Your task to perform on an android device: Go to Wikipedia Image 0: 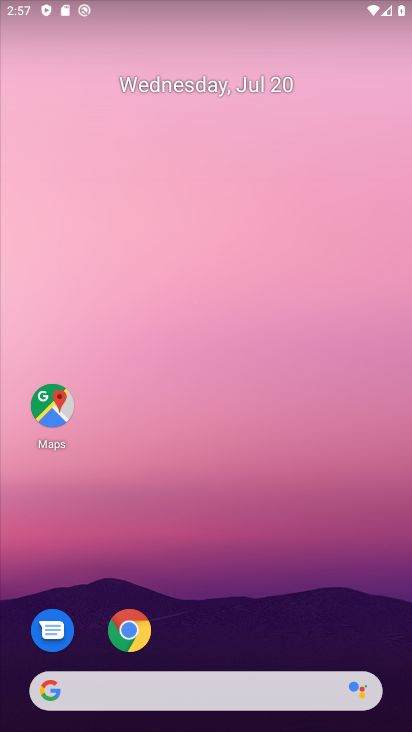
Step 0: press home button
Your task to perform on an android device: Go to Wikipedia Image 1: 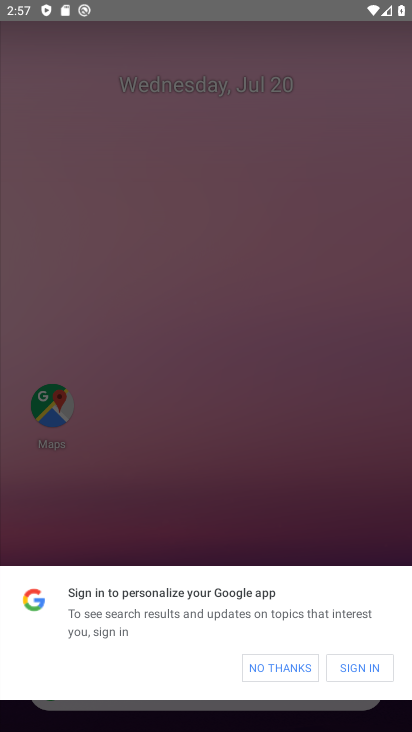
Step 1: click (272, 679)
Your task to perform on an android device: Go to Wikipedia Image 2: 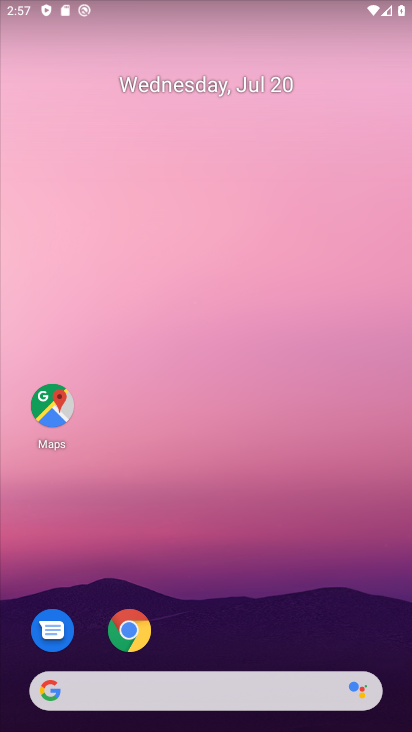
Step 2: click (50, 700)
Your task to perform on an android device: Go to Wikipedia Image 3: 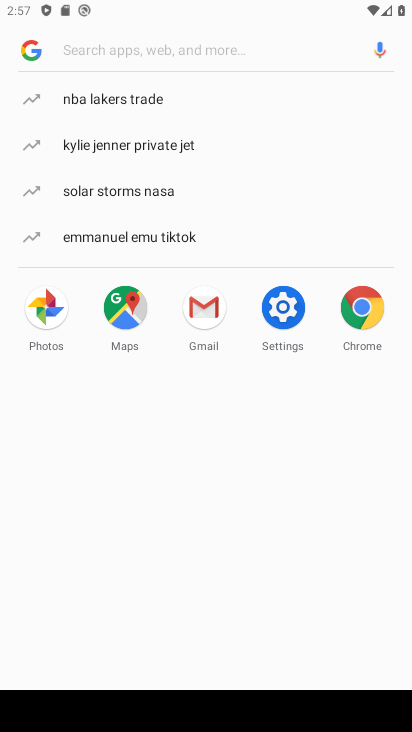
Step 3: type "Wikipedia"
Your task to perform on an android device: Go to Wikipedia Image 4: 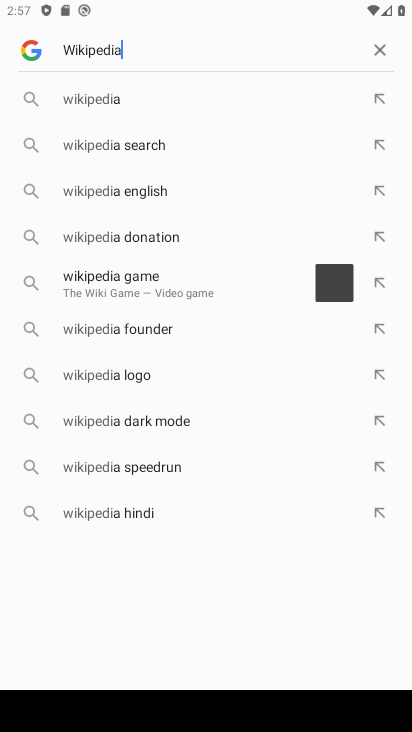
Step 4: press enter
Your task to perform on an android device: Go to Wikipedia Image 5: 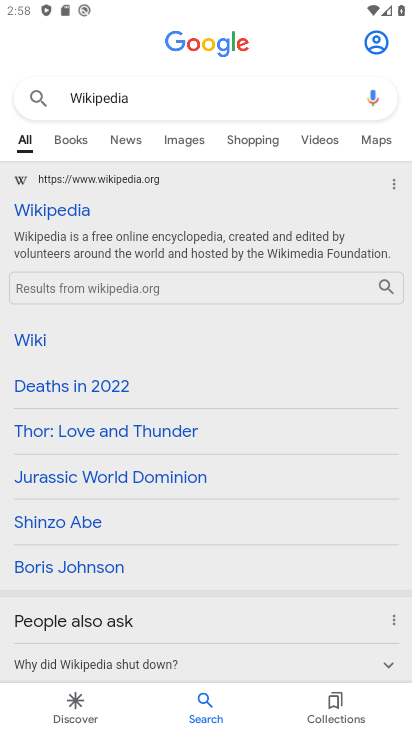
Step 5: click (45, 214)
Your task to perform on an android device: Go to Wikipedia Image 6: 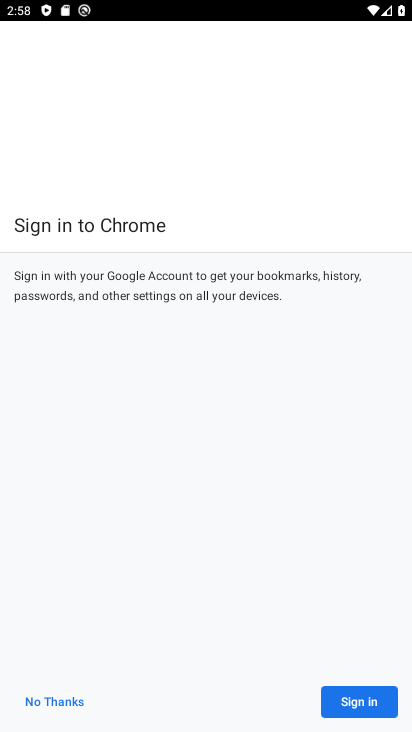
Step 6: click (42, 696)
Your task to perform on an android device: Go to Wikipedia Image 7: 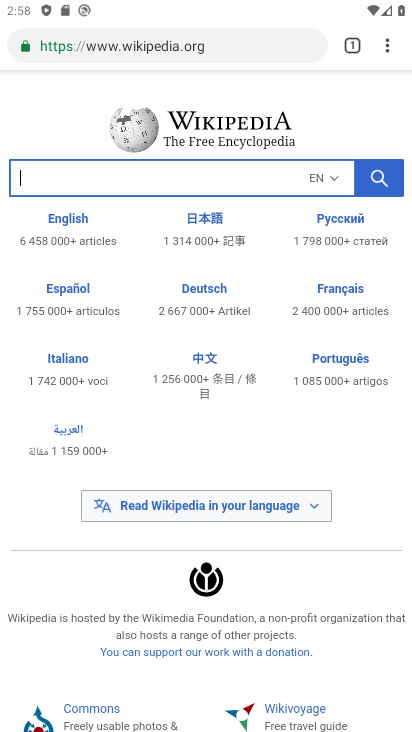
Step 7: task complete